Your task to perform on an android device: empty trash in google photos Image 0: 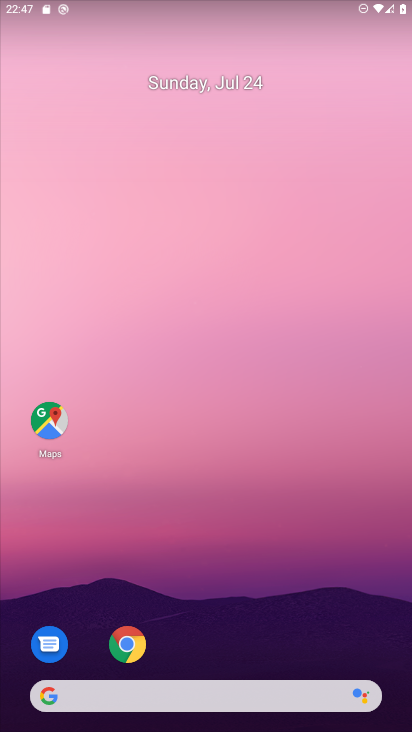
Step 0: drag from (372, 645) to (326, 78)
Your task to perform on an android device: empty trash in google photos Image 1: 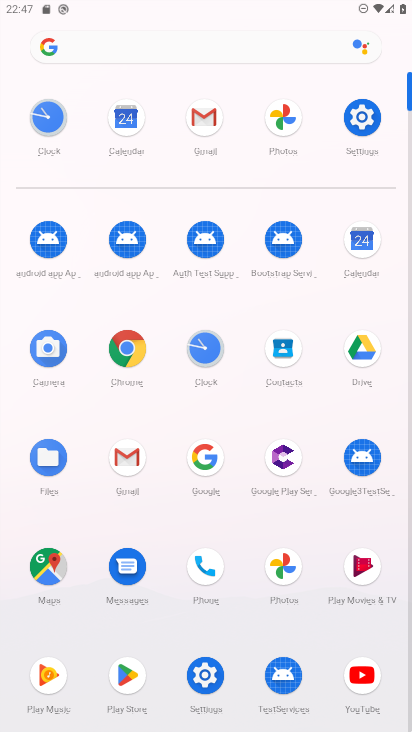
Step 1: click (282, 563)
Your task to perform on an android device: empty trash in google photos Image 2: 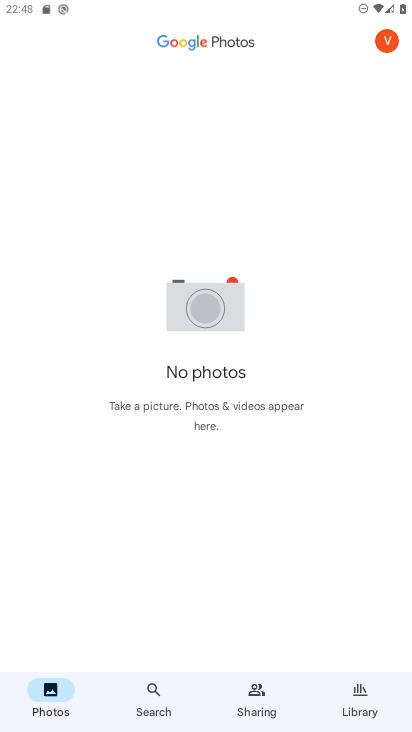
Step 2: click (357, 692)
Your task to perform on an android device: empty trash in google photos Image 3: 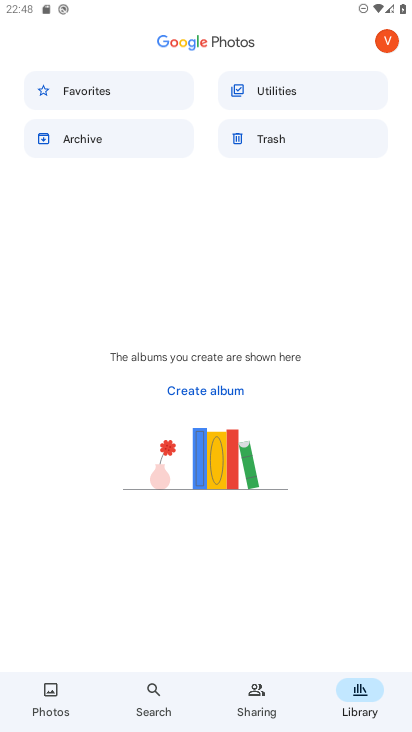
Step 3: click (254, 138)
Your task to perform on an android device: empty trash in google photos Image 4: 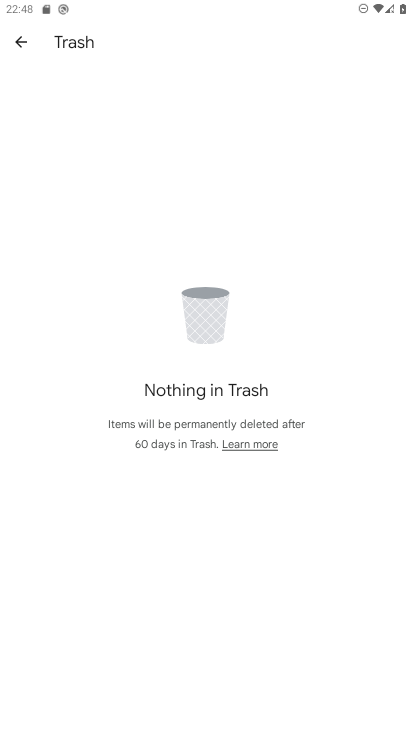
Step 4: task complete